Your task to perform on an android device: check android version Image 0: 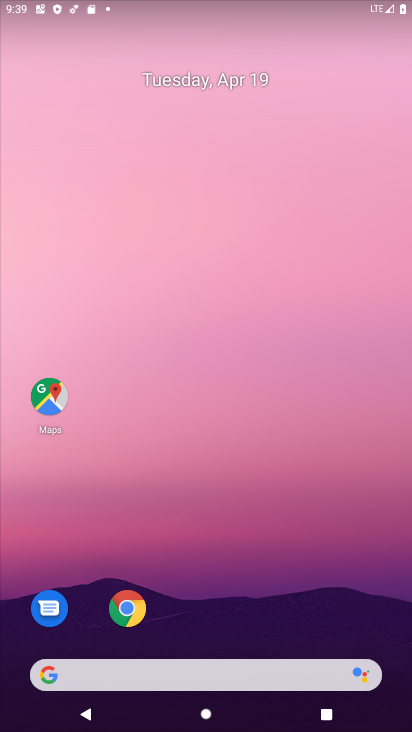
Step 0: drag from (381, 624) to (307, 140)
Your task to perform on an android device: check android version Image 1: 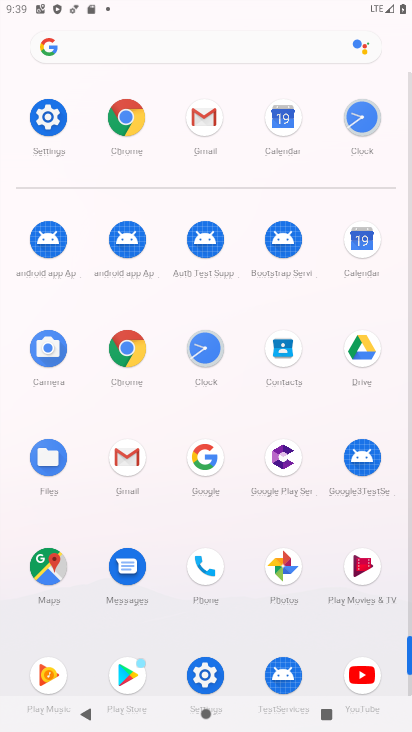
Step 1: click (201, 676)
Your task to perform on an android device: check android version Image 2: 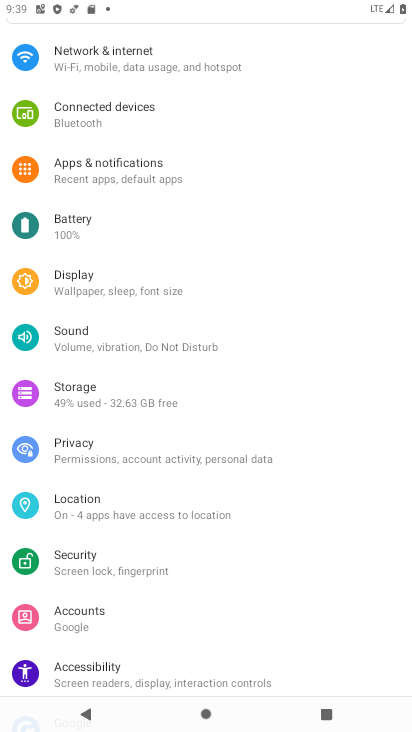
Step 2: drag from (281, 618) to (303, 357)
Your task to perform on an android device: check android version Image 3: 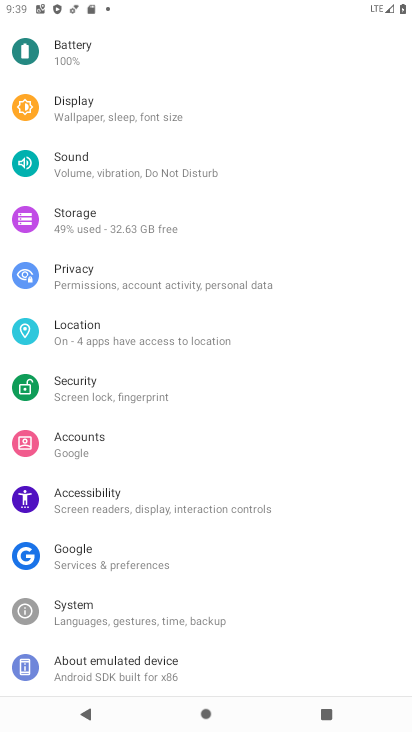
Step 3: click (103, 661)
Your task to perform on an android device: check android version Image 4: 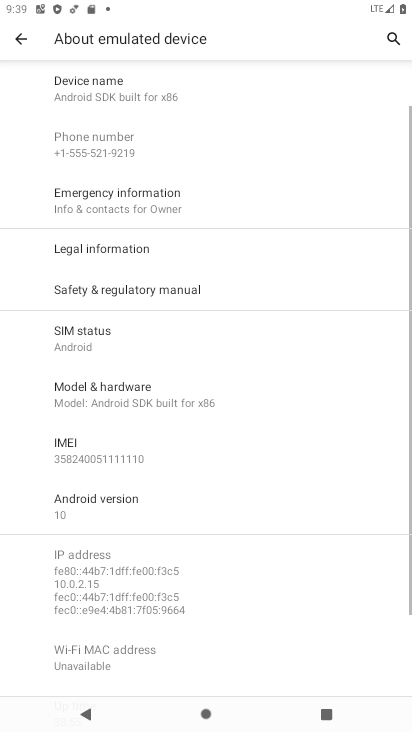
Step 4: click (85, 500)
Your task to perform on an android device: check android version Image 5: 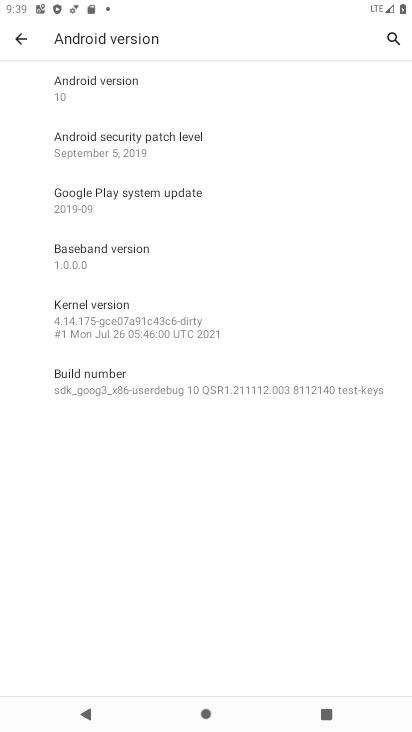
Step 5: task complete